Your task to perform on an android device: toggle airplane mode Image 0: 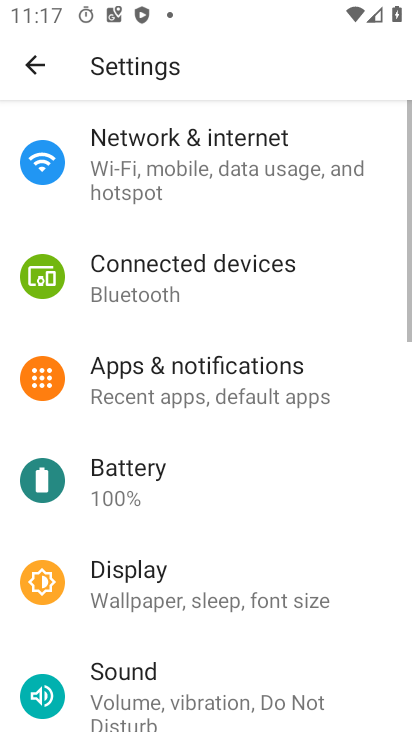
Step 0: press home button
Your task to perform on an android device: toggle airplane mode Image 1: 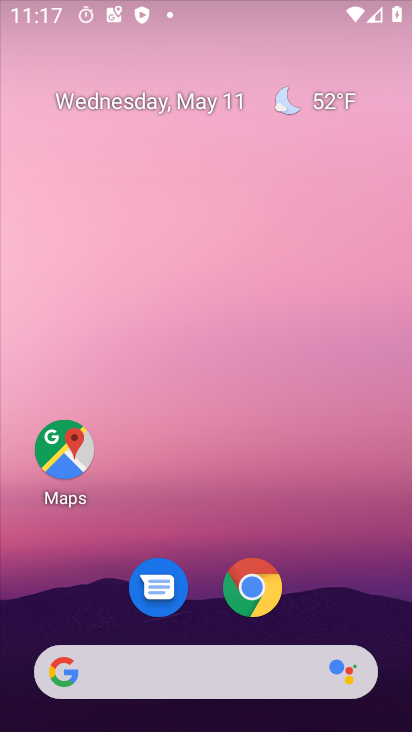
Step 1: drag from (190, 703) to (283, 278)
Your task to perform on an android device: toggle airplane mode Image 2: 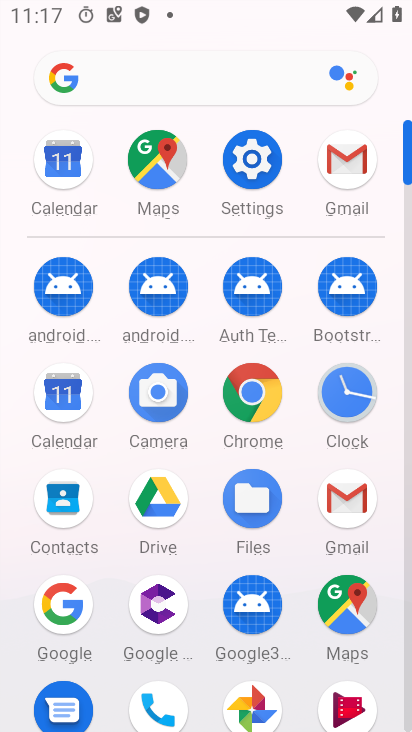
Step 2: click (396, 425)
Your task to perform on an android device: toggle airplane mode Image 3: 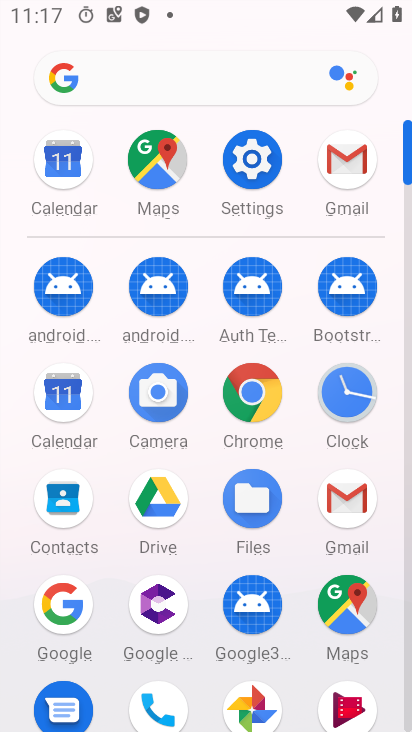
Step 3: drag from (230, 543) to (312, 323)
Your task to perform on an android device: toggle airplane mode Image 4: 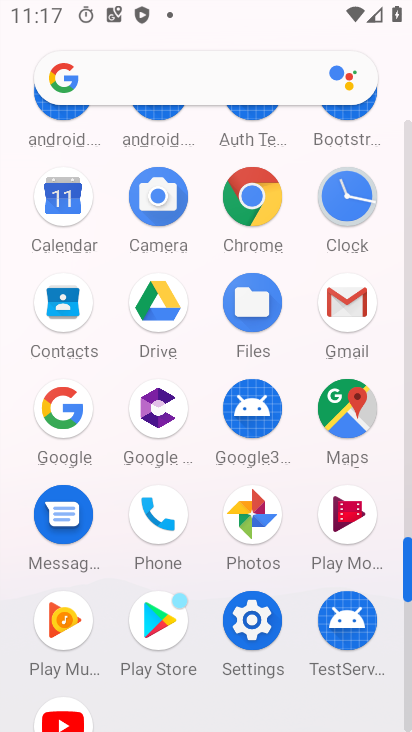
Step 4: click (237, 609)
Your task to perform on an android device: toggle airplane mode Image 5: 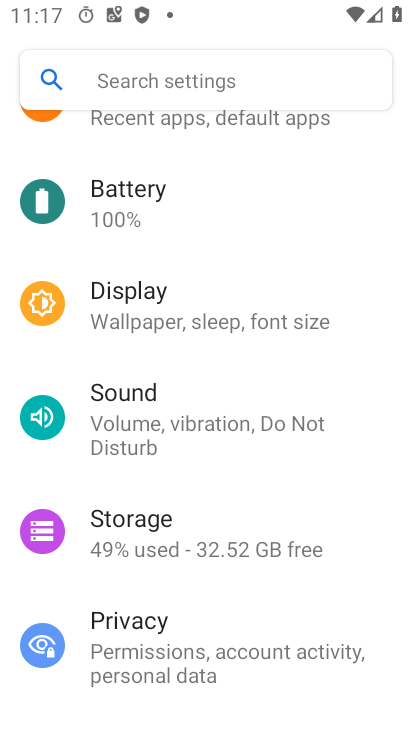
Step 5: drag from (212, 192) to (133, 403)
Your task to perform on an android device: toggle airplane mode Image 6: 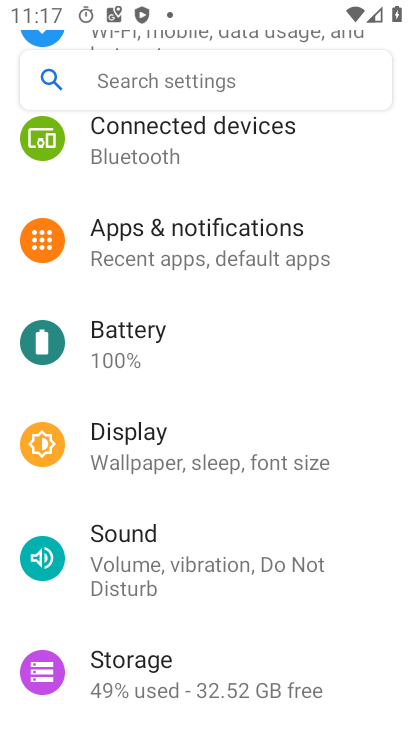
Step 6: drag from (223, 182) to (136, 479)
Your task to perform on an android device: toggle airplane mode Image 7: 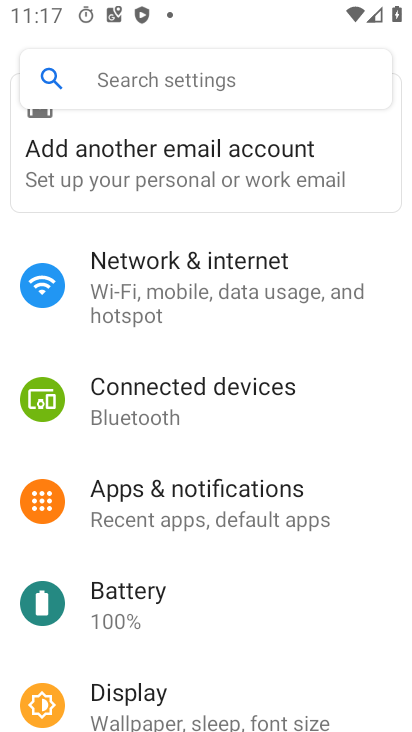
Step 7: click (156, 279)
Your task to perform on an android device: toggle airplane mode Image 8: 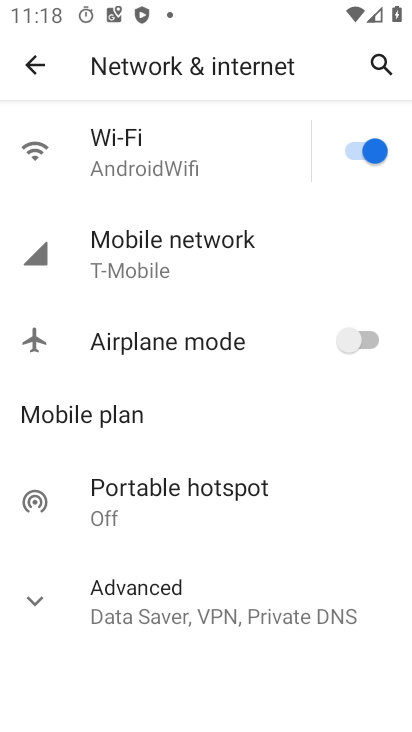
Step 8: click (357, 341)
Your task to perform on an android device: toggle airplane mode Image 9: 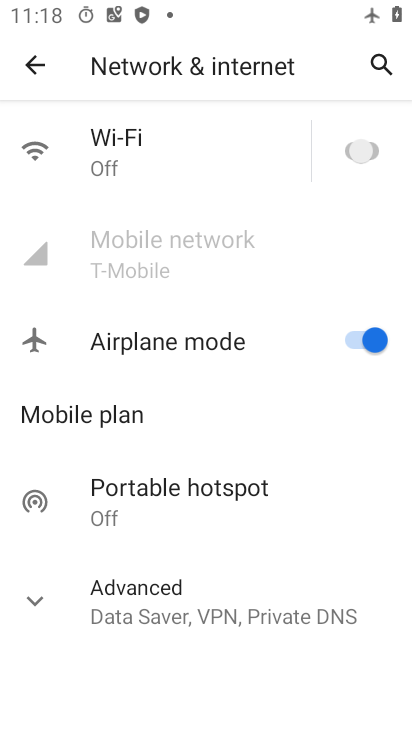
Step 9: click (233, 346)
Your task to perform on an android device: toggle airplane mode Image 10: 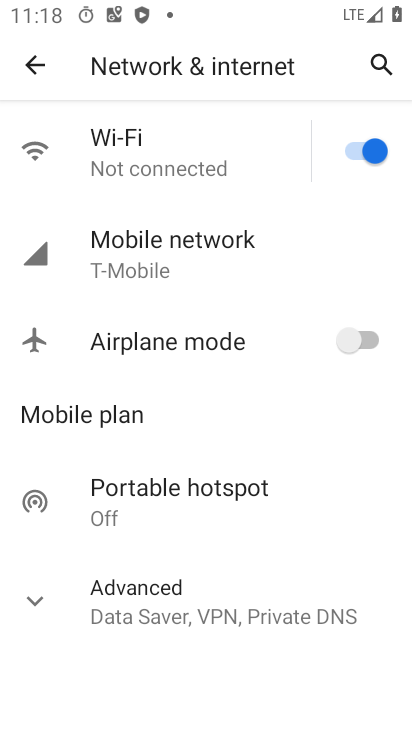
Step 10: task complete